Your task to perform on an android device: What's the weather? Image 0: 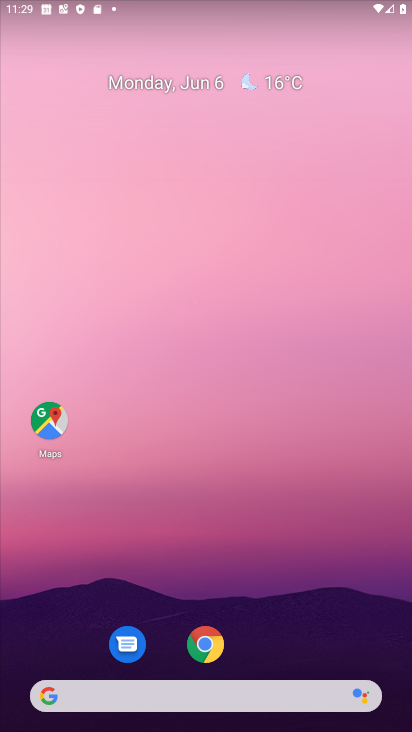
Step 0: click (297, 693)
Your task to perform on an android device: What's the weather? Image 1: 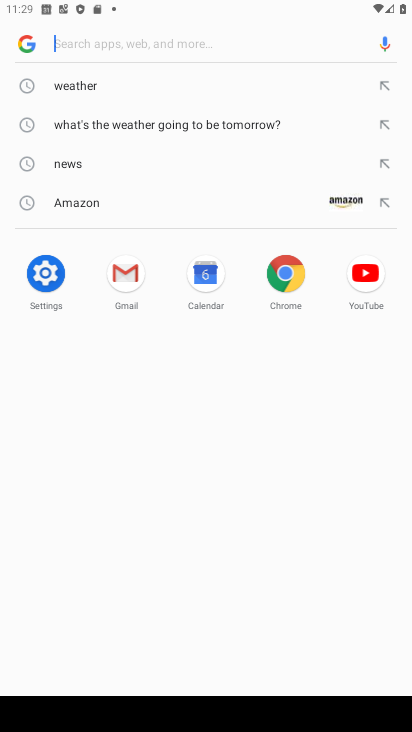
Step 1: click (129, 82)
Your task to perform on an android device: What's the weather? Image 2: 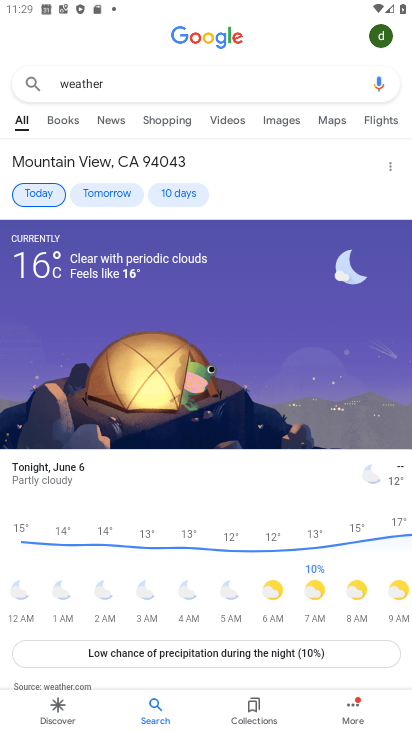
Step 2: task complete